Your task to perform on an android device: Go to settings Image 0: 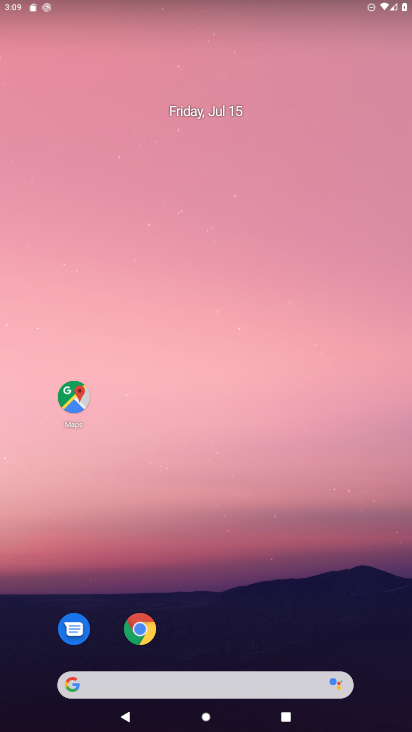
Step 0: drag from (334, 432) to (408, 224)
Your task to perform on an android device: Go to settings Image 1: 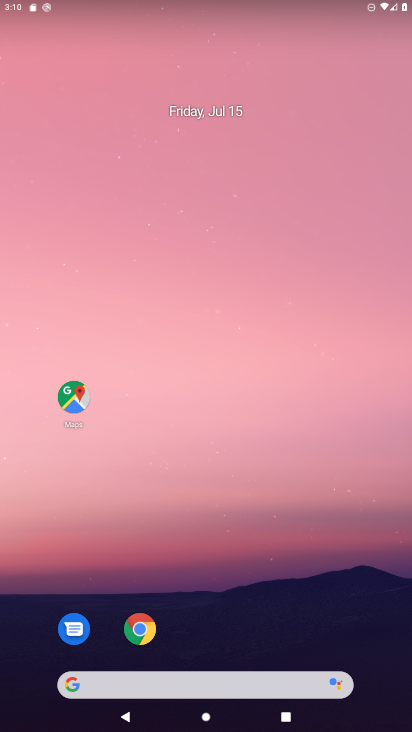
Step 1: drag from (256, 535) to (299, 1)
Your task to perform on an android device: Go to settings Image 2: 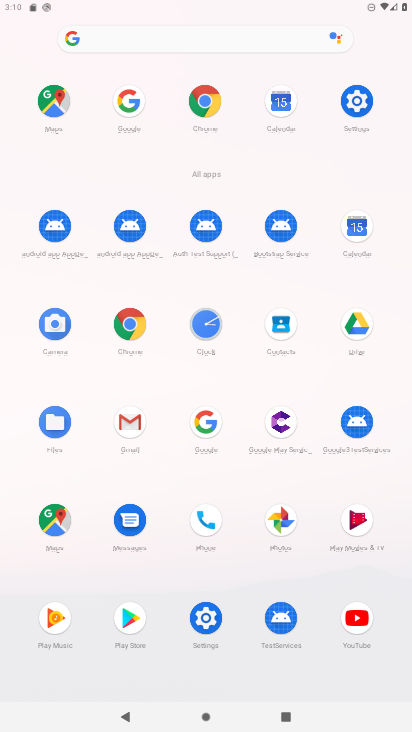
Step 2: click (360, 102)
Your task to perform on an android device: Go to settings Image 3: 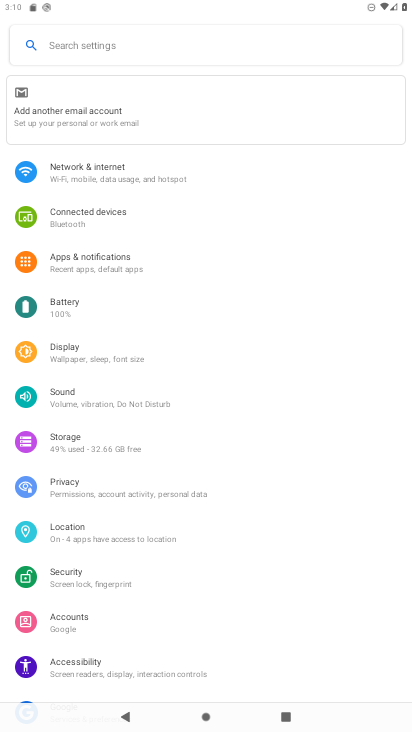
Step 3: task complete